Your task to perform on an android device: star an email in the gmail app Image 0: 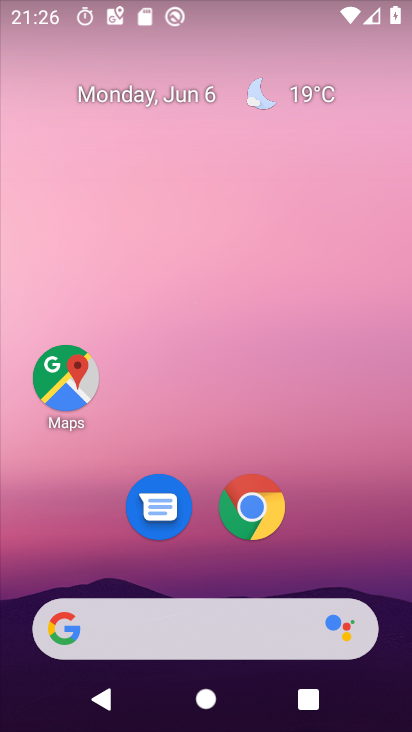
Step 0: press home button
Your task to perform on an android device: star an email in the gmail app Image 1: 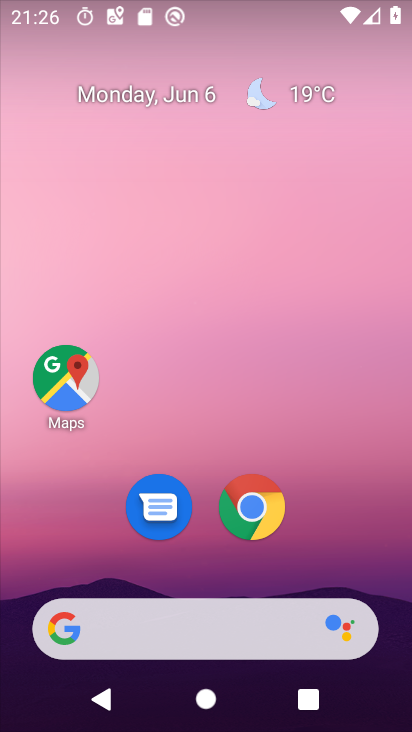
Step 1: drag from (326, 564) to (294, 44)
Your task to perform on an android device: star an email in the gmail app Image 2: 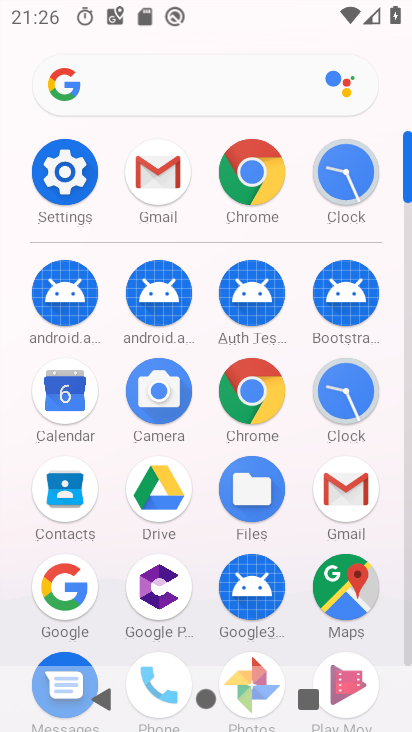
Step 2: click (171, 174)
Your task to perform on an android device: star an email in the gmail app Image 3: 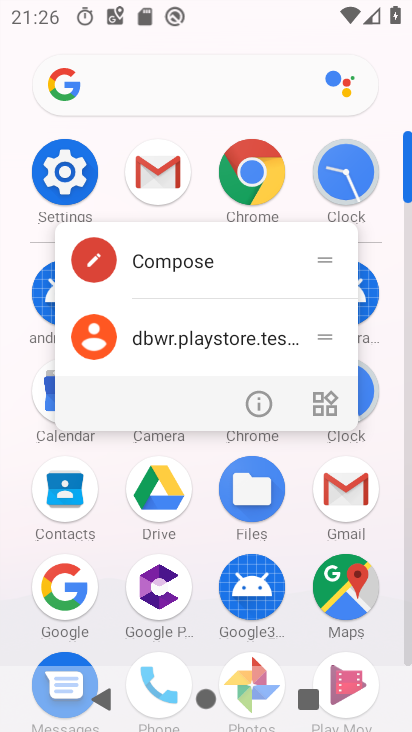
Step 3: click (147, 180)
Your task to perform on an android device: star an email in the gmail app Image 4: 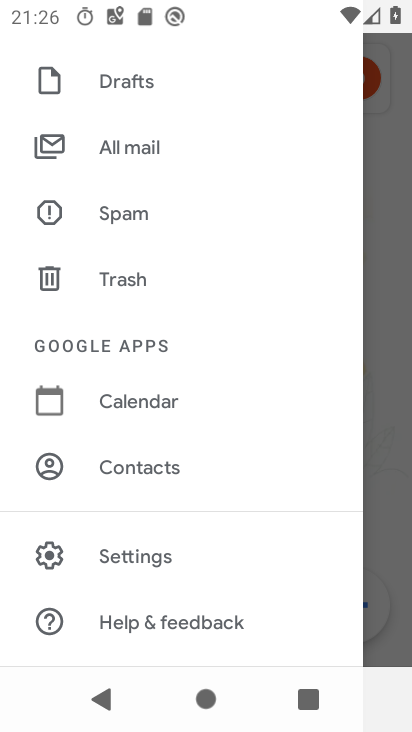
Step 4: task complete